Your task to perform on an android device: Open ESPN.com Image 0: 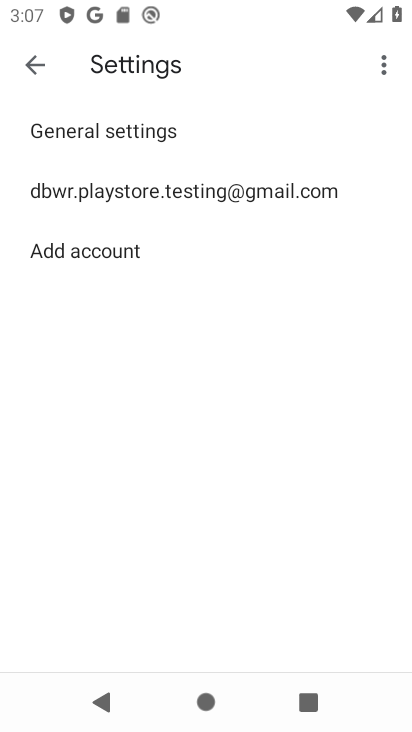
Step 0: press home button
Your task to perform on an android device: Open ESPN.com Image 1: 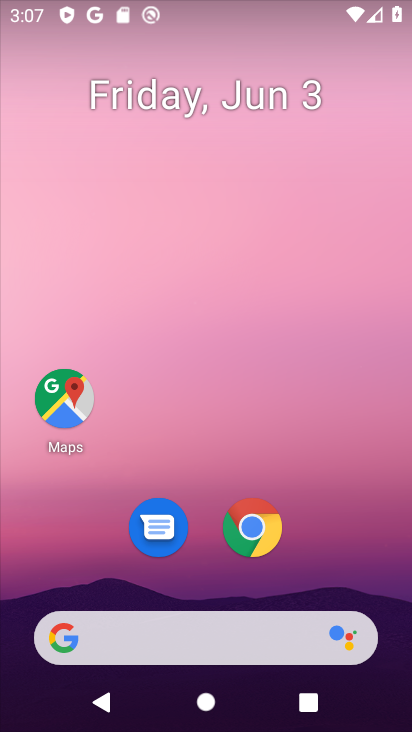
Step 1: drag from (180, 599) to (170, 216)
Your task to perform on an android device: Open ESPN.com Image 2: 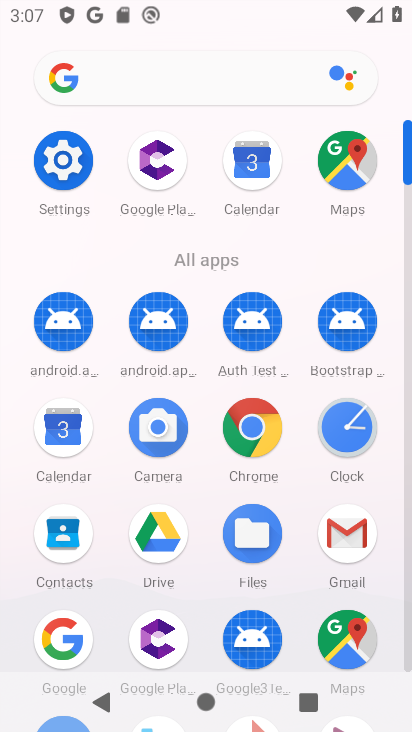
Step 2: click (237, 433)
Your task to perform on an android device: Open ESPN.com Image 3: 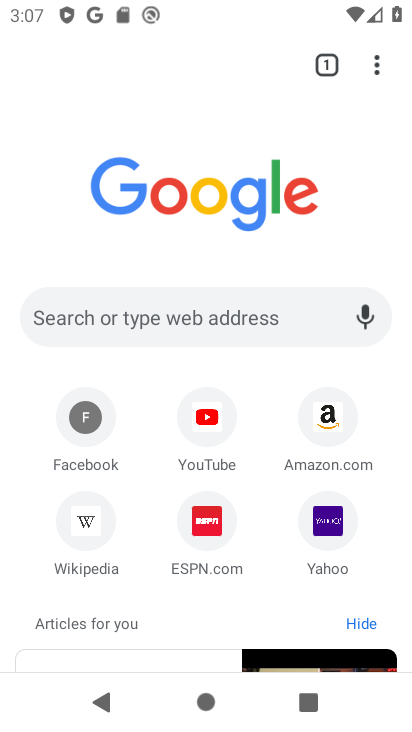
Step 3: click (389, 59)
Your task to perform on an android device: Open ESPN.com Image 4: 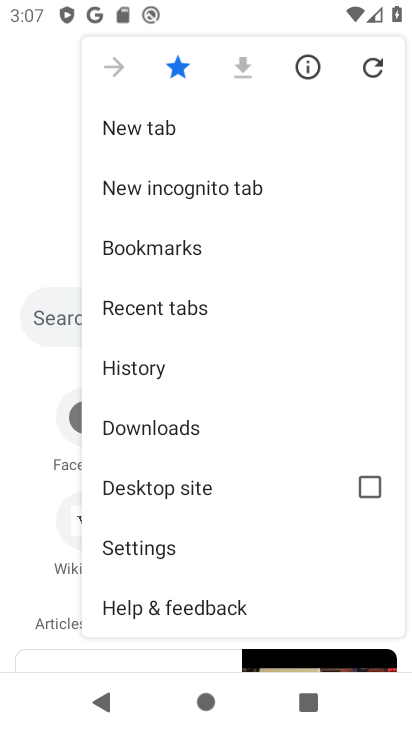
Step 4: click (52, 153)
Your task to perform on an android device: Open ESPN.com Image 5: 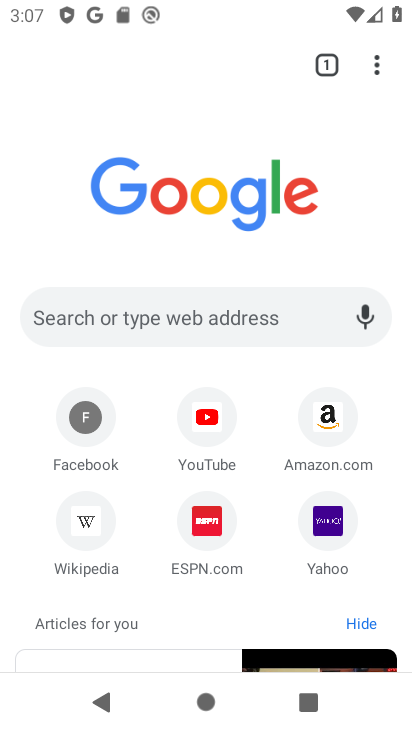
Step 5: click (198, 508)
Your task to perform on an android device: Open ESPN.com Image 6: 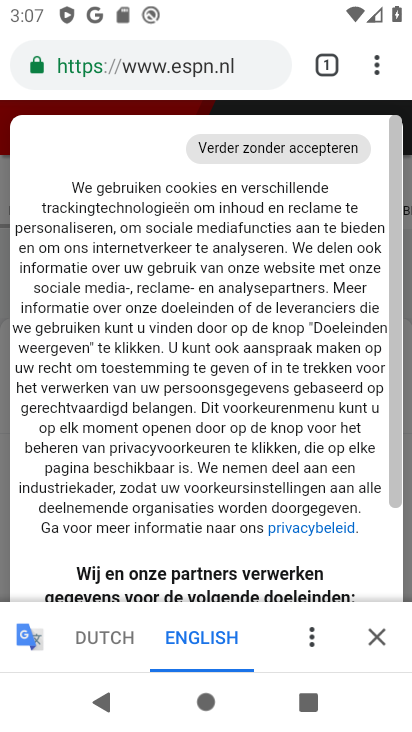
Step 6: click (373, 629)
Your task to perform on an android device: Open ESPN.com Image 7: 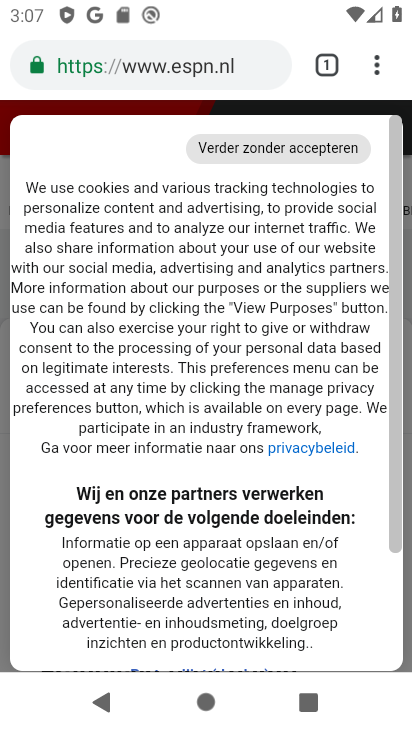
Step 7: task complete